Your task to perform on an android device: Open internet settings Image 0: 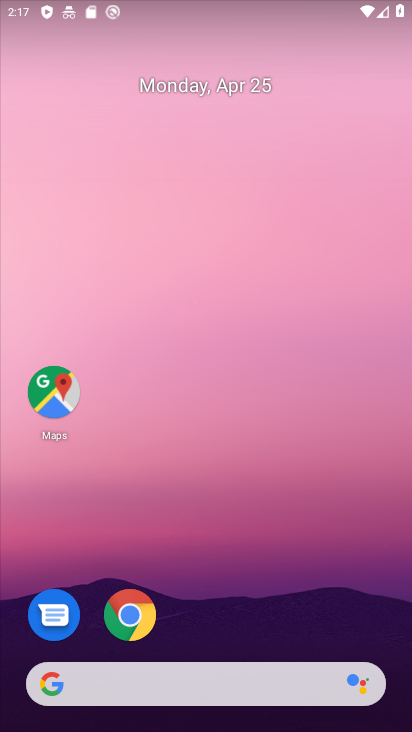
Step 0: drag from (230, 711) to (202, 213)
Your task to perform on an android device: Open internet settings Image 1: 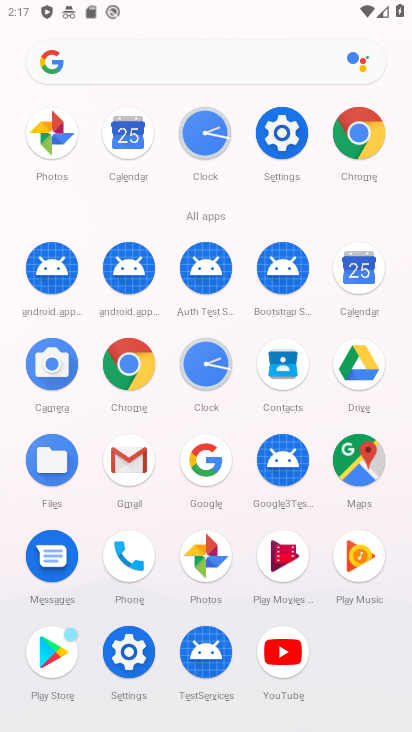
Step 1: click (286, 127)
Your task to perform on an android device: Open internet settings Image 2: 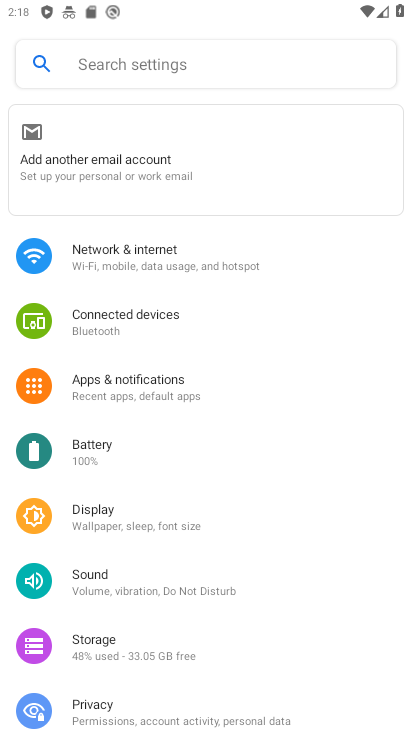
Step 2: click (136, 259)
Your task to perform on an android device: Open internet settings Image 3: 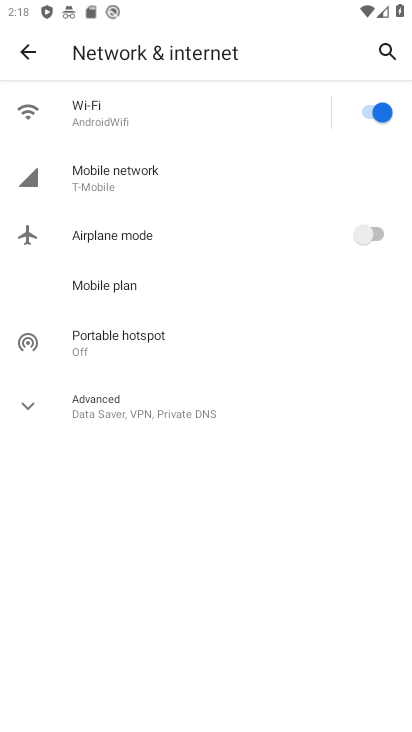
Step 3: task complete